Your task to perform on an android device: Show me recent news Image 0: 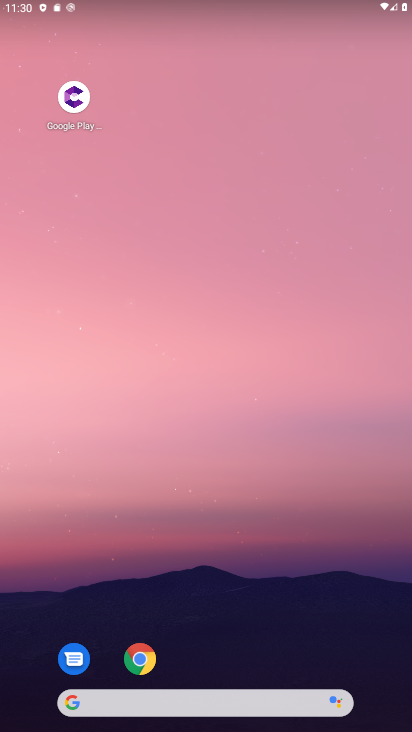
Step 0: click (136, 643)
Your task to perform on an android device: Show me recent news Image 1: 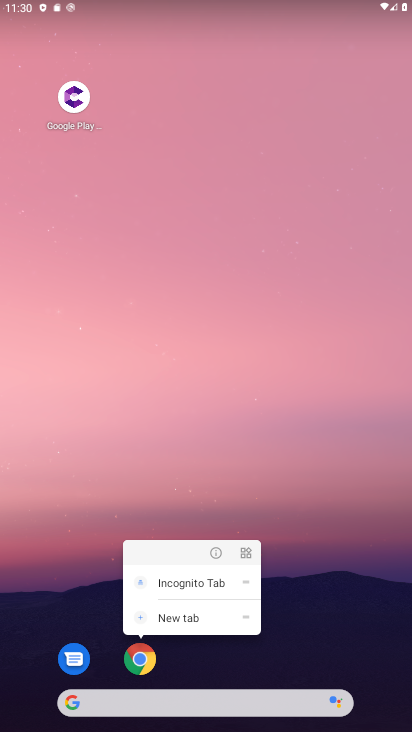
Step 1: click (146, 648)
Your task to perform on an android device: Show me recent news Image 2: 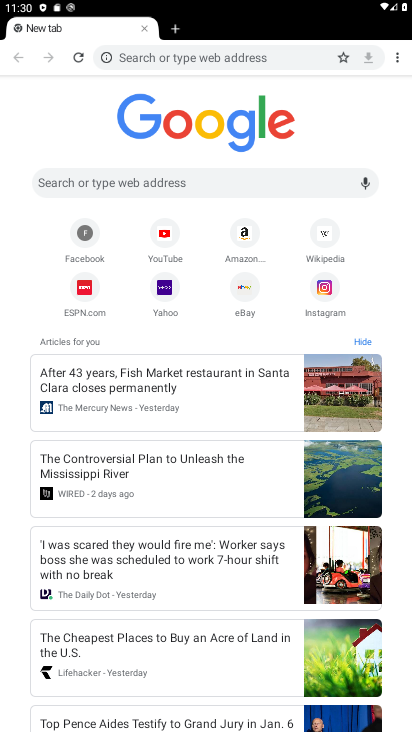
Step 2: click (234, 190)
Your task to perform on an android device: Show me recent news Image 3: 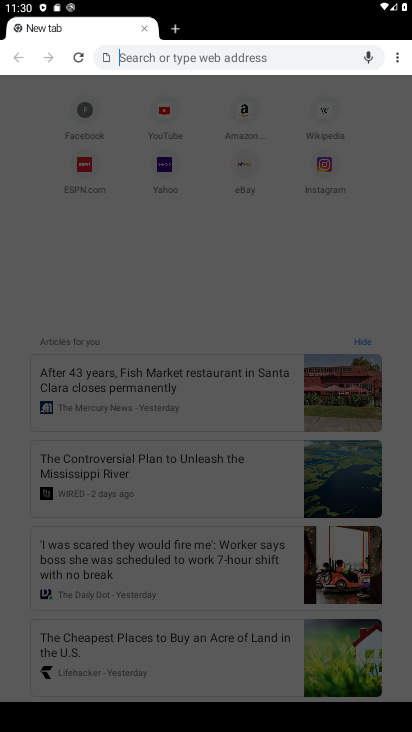
Step 3: type "Show me recent news"
Your task to perform on an android device: Show me recent news Image 4: 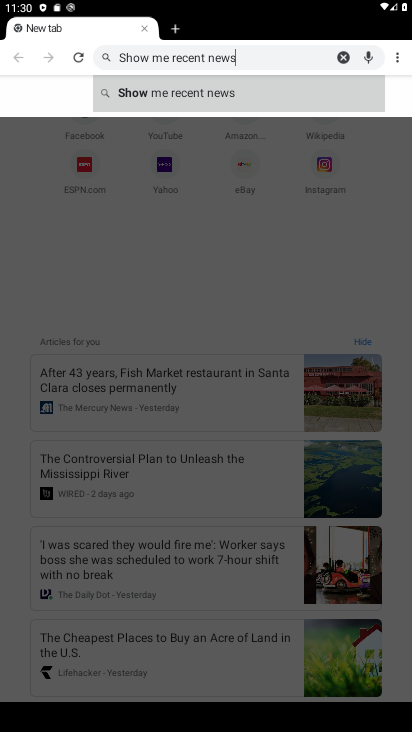
Step 4: type ""
Your task to perform on an android device: Show me recent news Image 5: 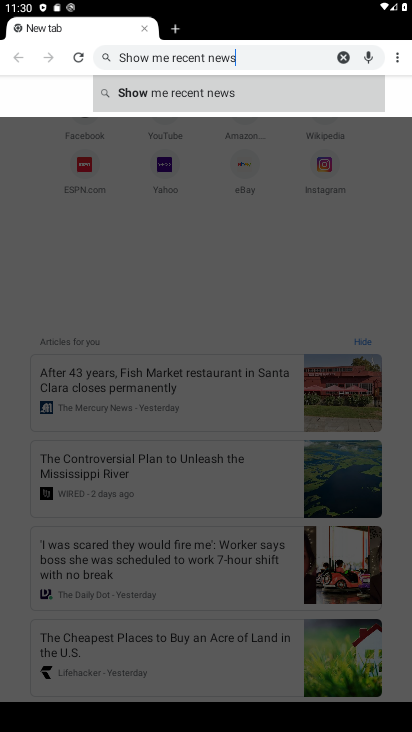
Step 5: click (131, 97)
Your task to perform on an android device: Show me recent news Image 6: 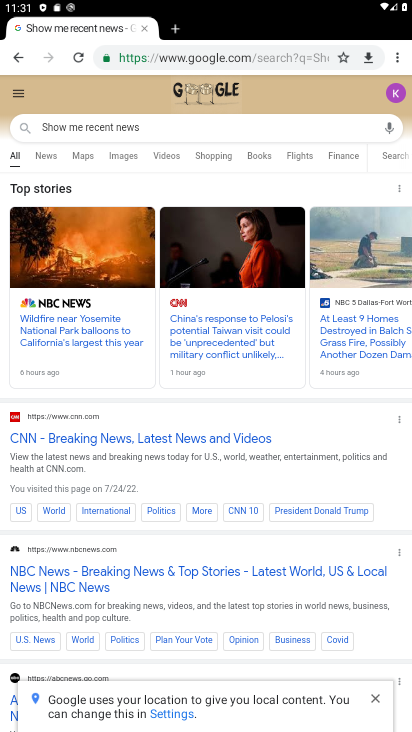
Step 6: task complete